Your task to perform on an android device: Show me popular games on the Play Store Image 0: 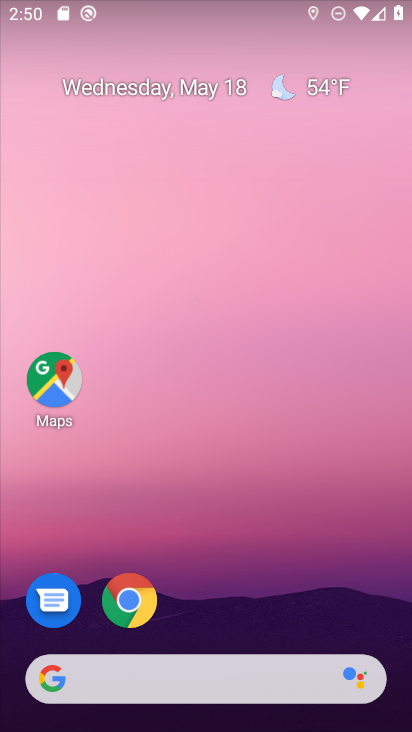
Step 0: drag from (227, 637) to (268, 126)
Your task to perform on an android device: Show me popular games on the Play Store Image 1: 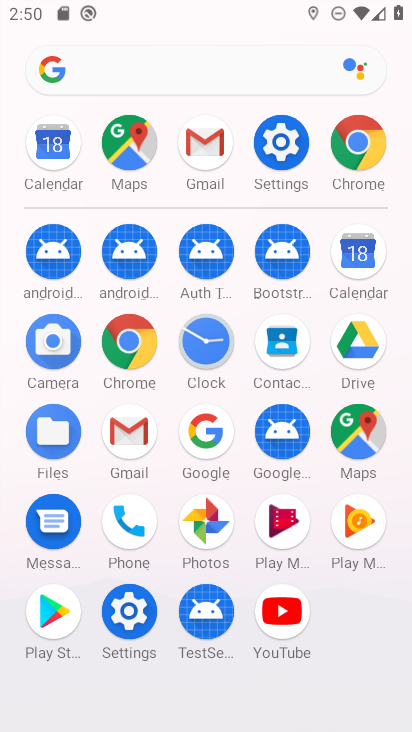
Step 1: click (62, 620)
Your task to perform on an android device: Show me popular games on the Play Store Image 2: 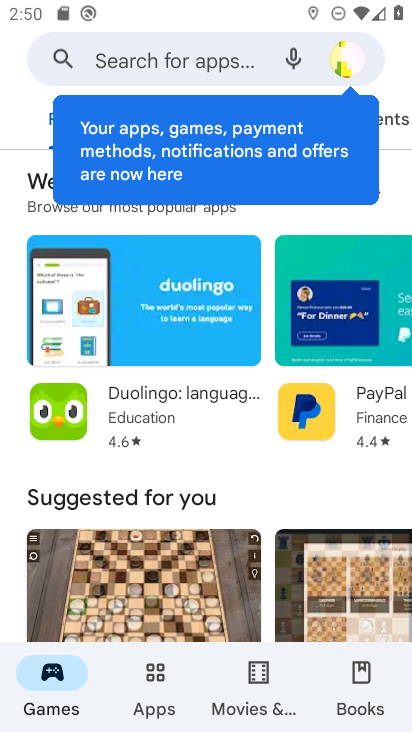
Step 2: click (24, 125)
Your task to perform on an android device: Show me popular games on the Play Store Image 3: 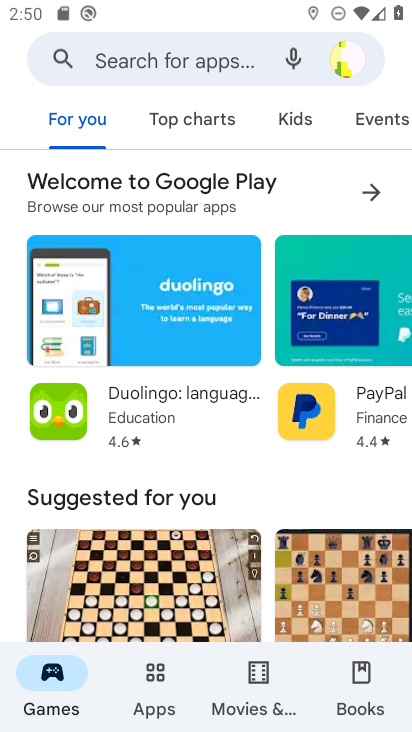
Step 3: click (191, 115)
Your task to perform on an android device: Show me popular games on the Play Store Image 4: 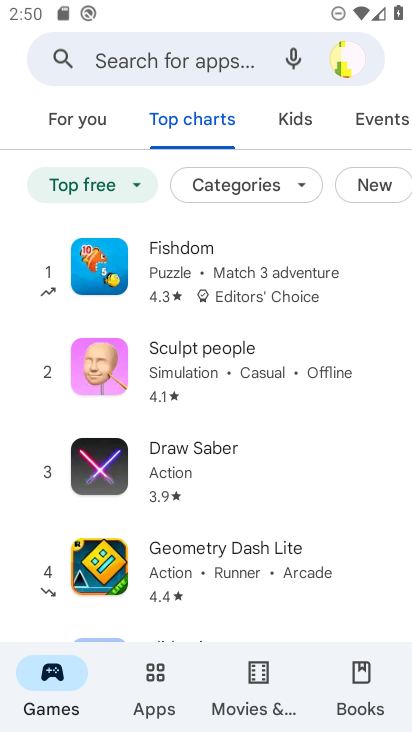
Step 4: task complete